Your task to perform on an android device: See recent photos Image 0: 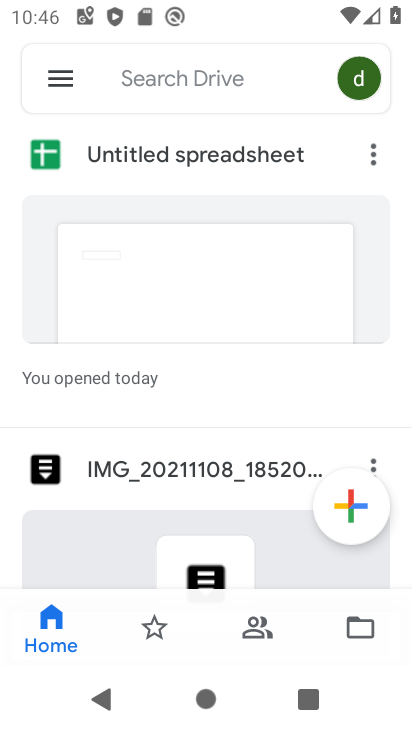
Step 0: press home button
Your task to perform on an android device: See recent photos Image 1: 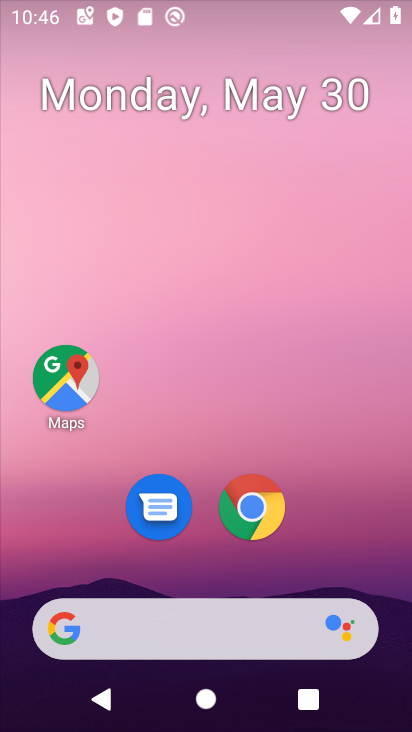
Step 1: drag from (393, 625) to (217, 119)
Your task to perform on an android device: See recent photos Image 2: 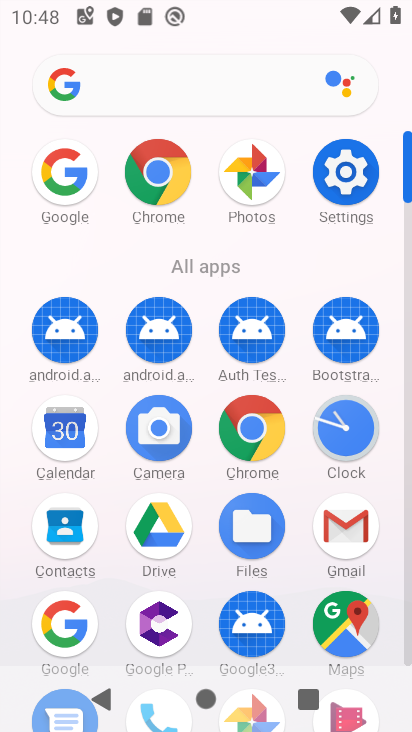
Step 2: drag from (289, 637) to (277, 130)
Your task to perform on an android device: See recent photos Image 3: 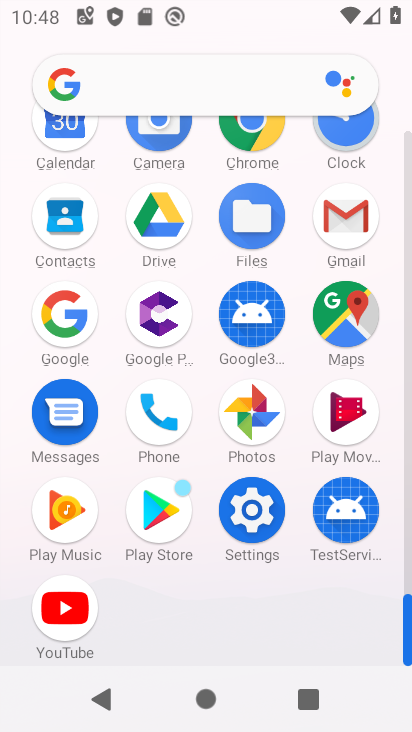
Step 3: click (258, 421)
Your task to perform on an android device: See recent photos Image 4: 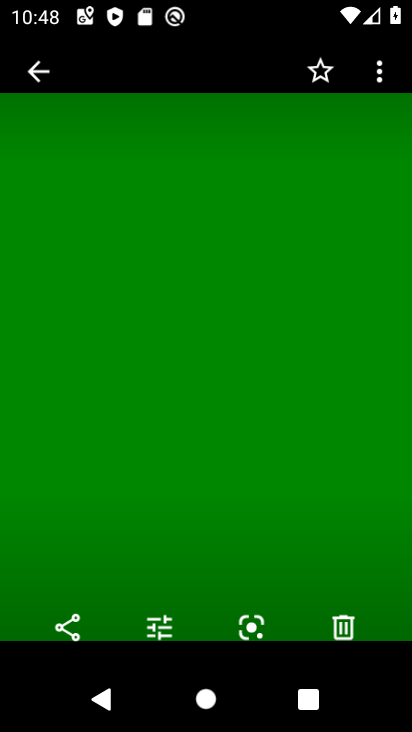
Step 4: task complete